Your task to perform on an android device: check the backup settings in the google photos Image 0: 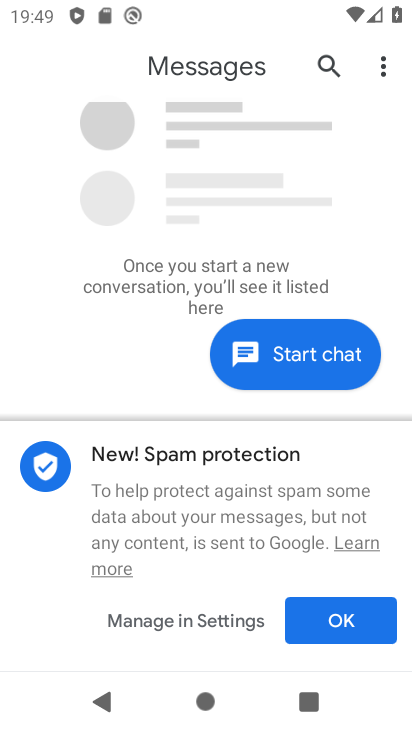
Step 0: press home button
Your task to perform on an android device: check the backup settings in the google photos Image 1: 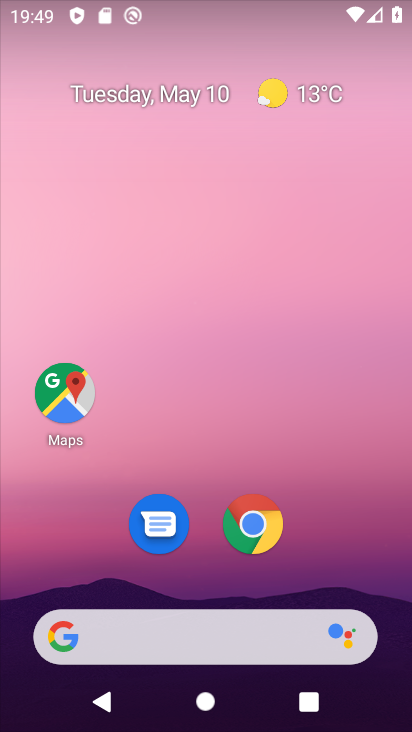
Step 1: drag from (331, 533) to (376, 63)
Your task to perform on an android device: check the backup settings in the google photos Image 2: 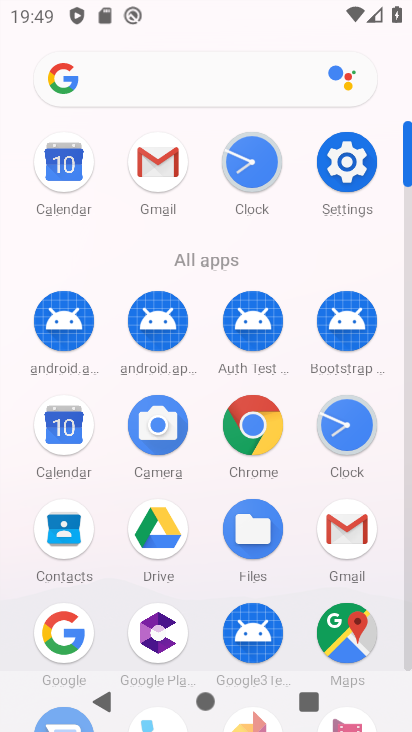
Step 2: drag from (293, 473) to (309, 223)
Your task to perform on an android device: check the backup settings in the google photos Image 3: 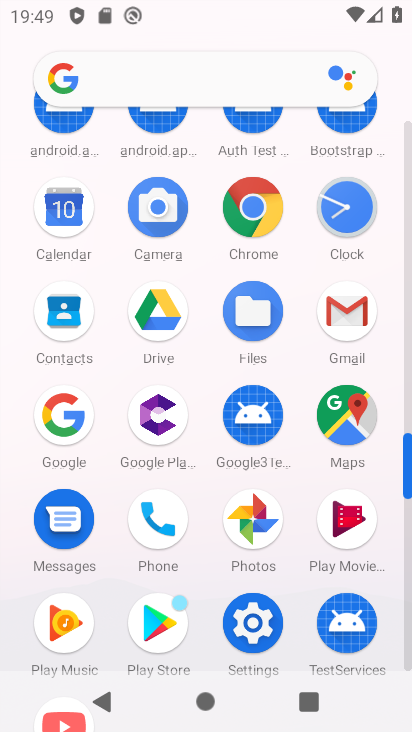
Step 3: click (253, 508)
Your task to perform on an android device: check the backup settings in the google photos Image 4: 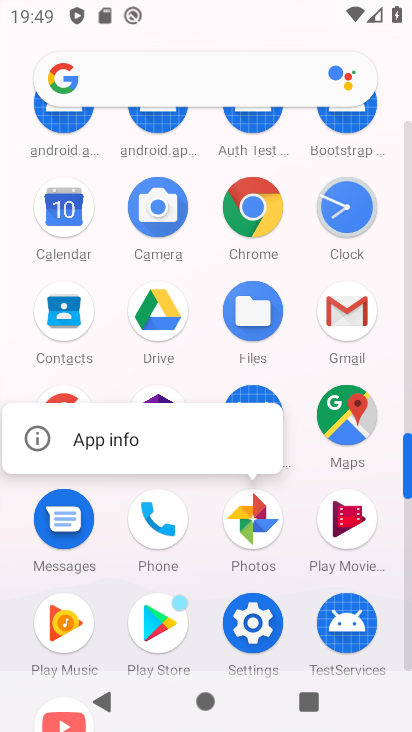
Step 4: click (253, 510)
Your task to perform on an android device: check the backup settings in the google photos Image 5: 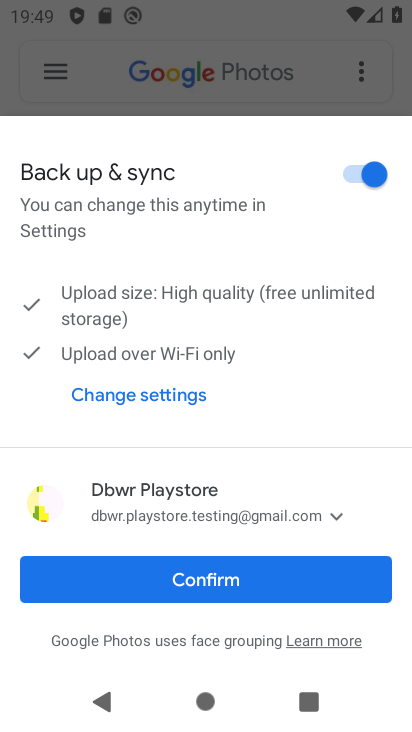
Step 5: click (234, 579)
Your task to perform on an android device: check the backup settings in the google photos Image 6: 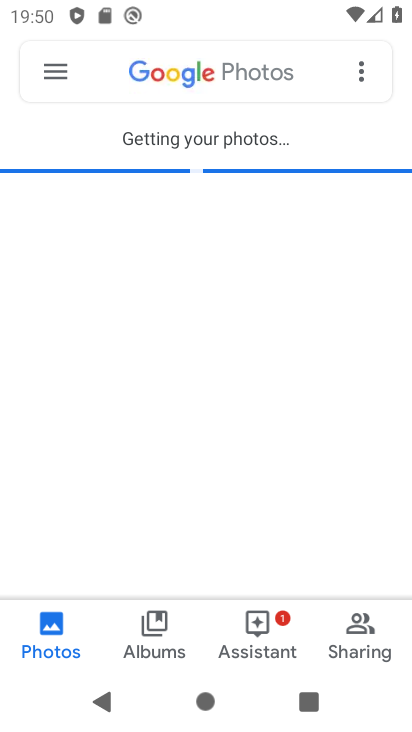
Step 6: click (50, 72)
Your task to perform on an android device: check the backup settings in the google photos Image 7: 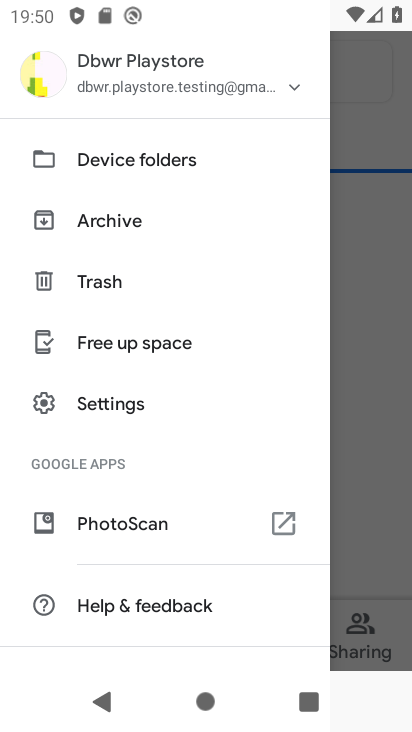
Step 7: click (121, 395)
Your task to perform on an android device: check the backup settings in the google photos Image 8: 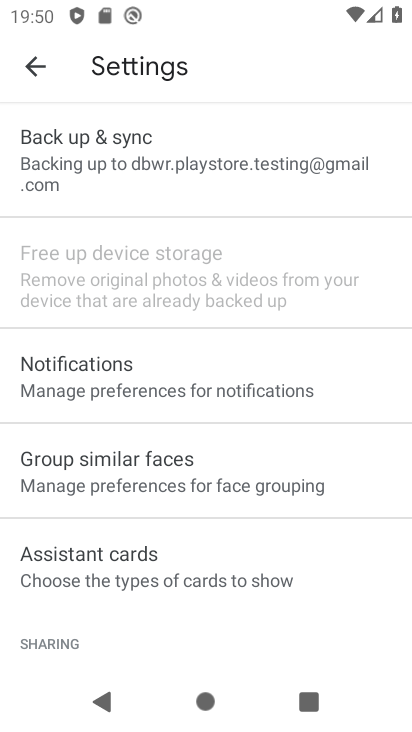
Step 8: click (168, 159)
Your task to perform on an android device: check the backup settings in the google photos Image 9: 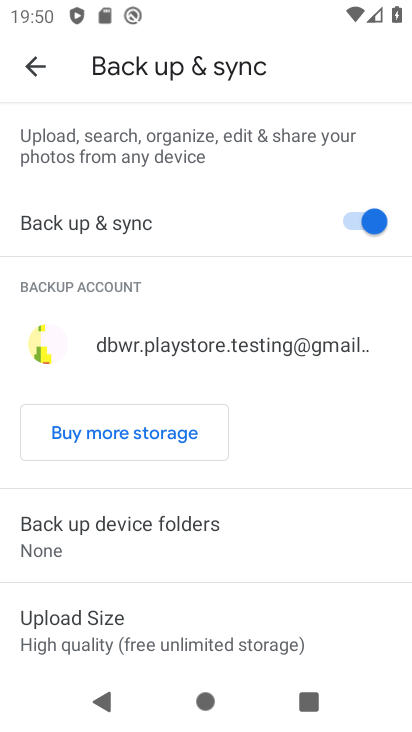
Step 9: task complete